Your task to perform on an android device: What's the weather going to be tomorrow? Image 0: 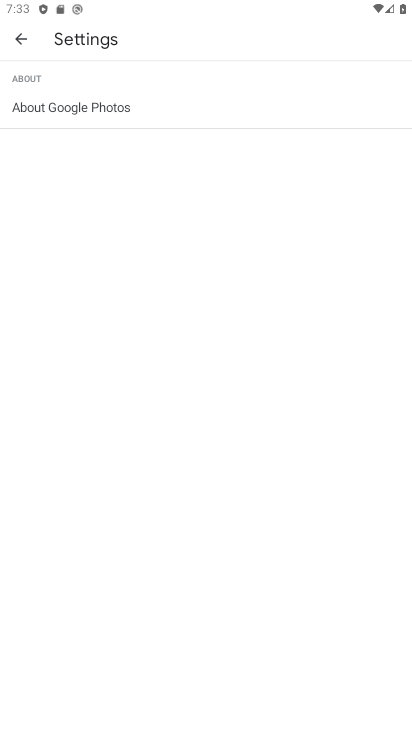
Step 0: press home button
Your task to perform on an android device: What's the weather going to be tomorrow? Image 1: 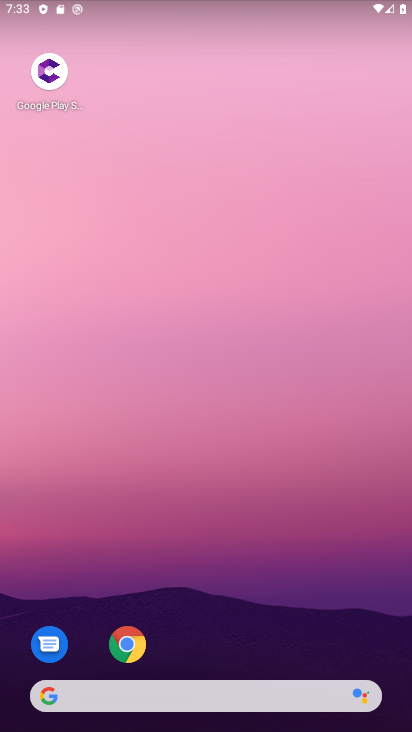
Step 1: click (137, 642)
Your task to perform on an android device: What's the weather going to be tomorrow? Image 2: 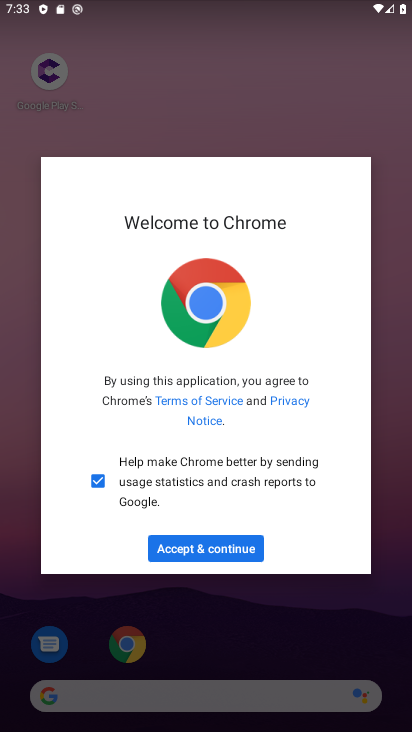
Step 2: click (205, 549)
Your task to perform on an android device: What's the weather going to be tomorrow? Image 3: 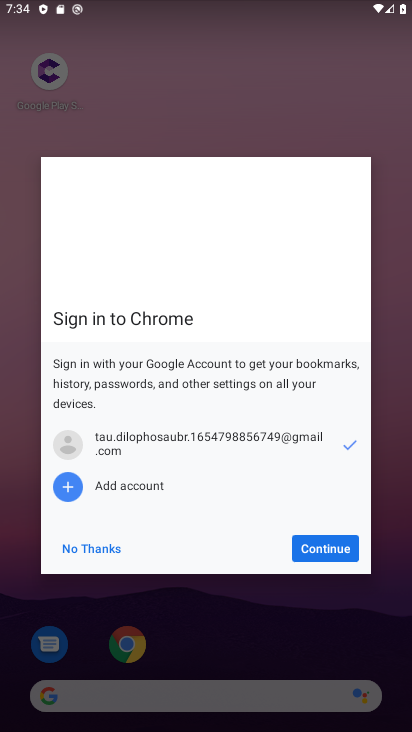
Step 3: click (332, 549)
Your task to perform on an android device: What's the weather going to be tomorrow? Image 4: 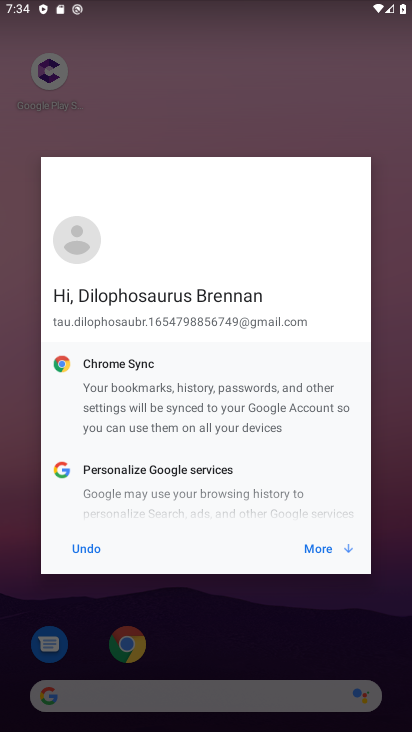
Step 4: click (332, 549)
Your task to perform on an android device: What's the weather going to be tomorrow? Image 5: 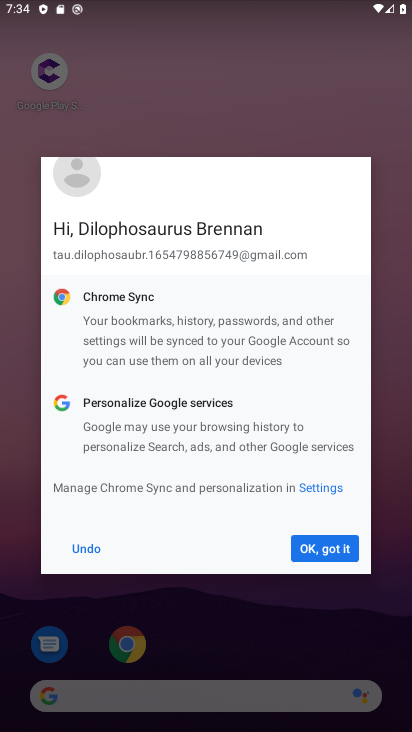
Step 5: click (332, 549)
Your task to perform on an android device: What's the weather going to be tomorrow? Image 6: 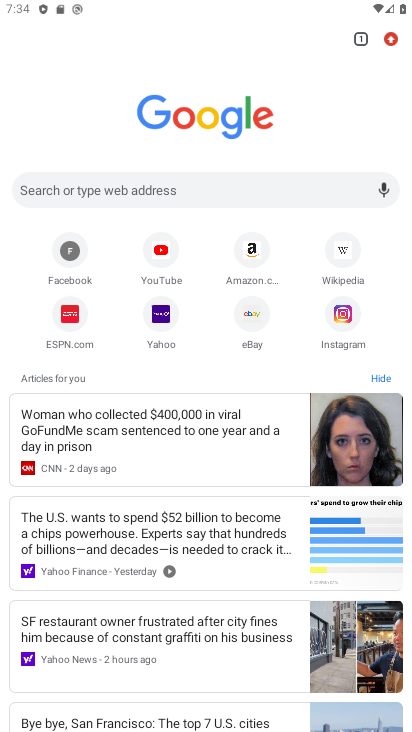
Step 6: click (195, 183)
Your task to perform on an android device: What's the weather going to be tomorrow? Image 7: 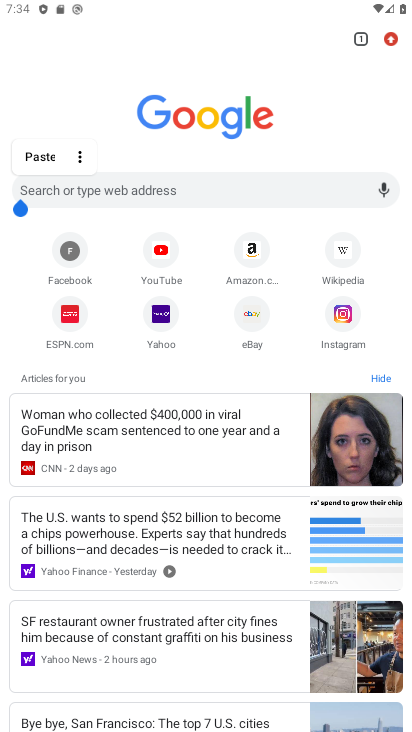
Step 7: type "What's the weather going to be tomorrow "
Your task to perform on an android device: What's the weather going to be tomorrow? Image 8: 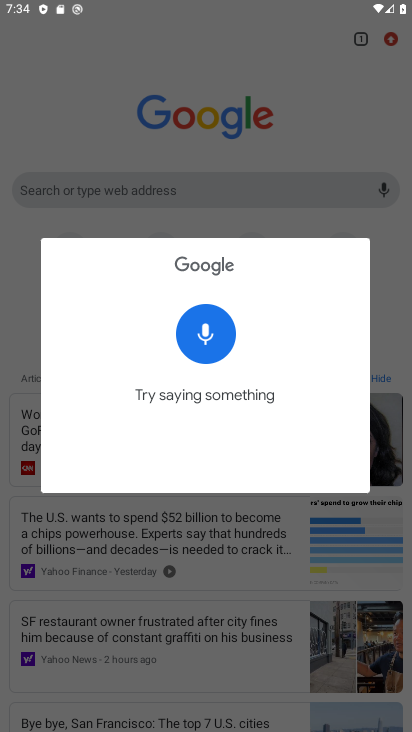
Step 8: click (126, 191)
Your task to perform on an android device: What's the weather going to be tomorrow? Image 9: 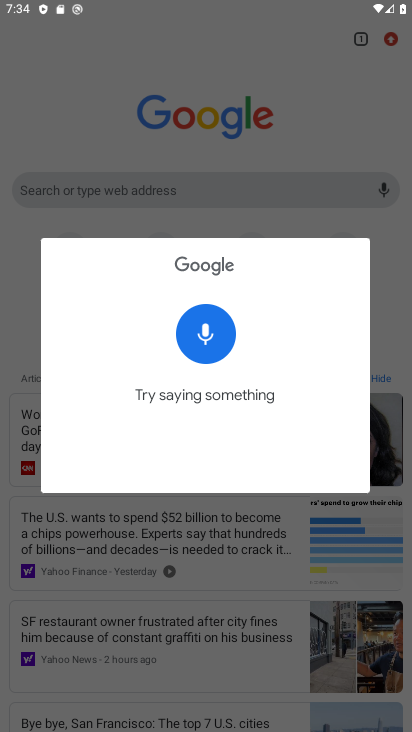
Step 9: click (126, 186)
Your task to perform on an android device: What's the weather going to be tomorrow? Image 10: 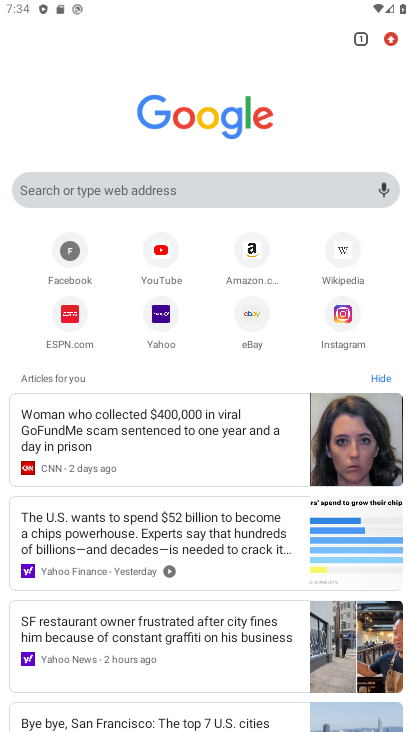
Step 10: click (126, 186)
Your task to perform on an android device: What's the weather going to be tomorrow? Image 11: 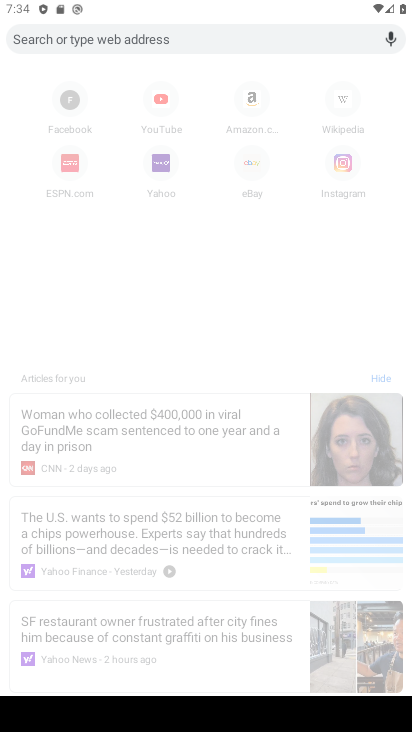
Step 11: click (231, 25)
Your task to perform on an android device: What's the weather going to be tomorrow? Image 12: 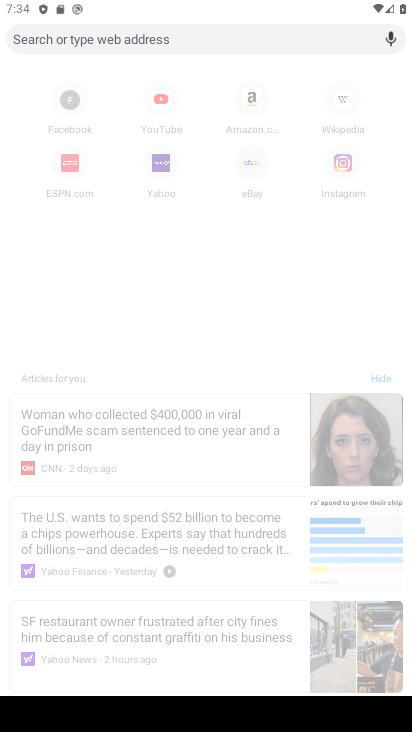
Step 12: click (229, 33)
Your task to perform on an android device: What's the weather going to be tomorrow? Image 13: 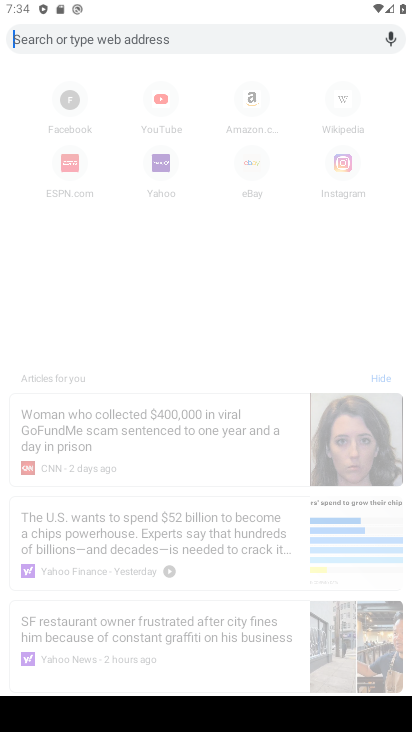
Step 13: type "What's the weather going to be tomorrow? "
Your task to perform on an android device: What's the weather going to be tomorrow? Image 14: 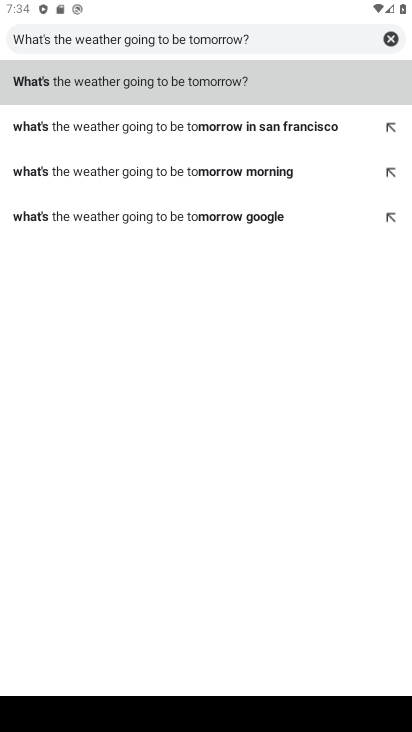
Step 14: click (109, 70)
Your task to perform on an android device: What's the weather going to be tomorrow? Image 15: 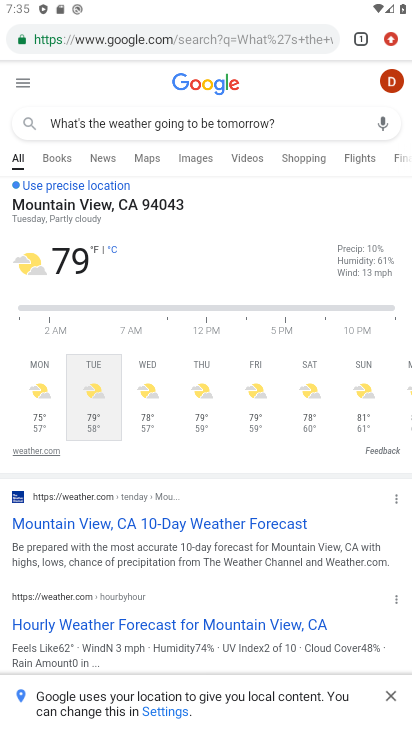
Step 15: task complete